Your task to perform on an android device: Open Chrome and go to settings Image 0: 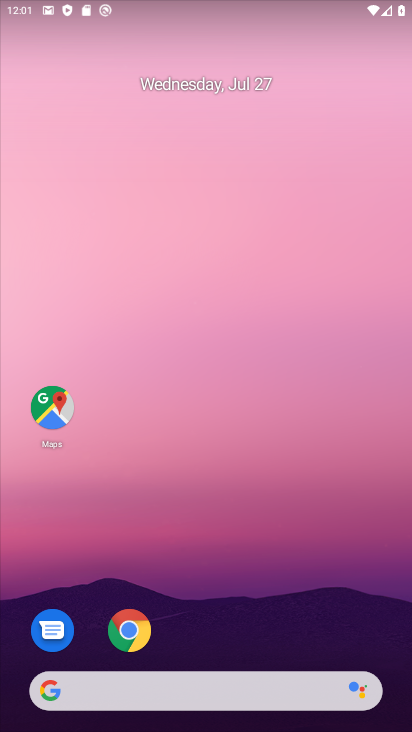
Step 0: click (138, 621)
Your task to perform on an android device: Open Chrome and go to settings Image 1: 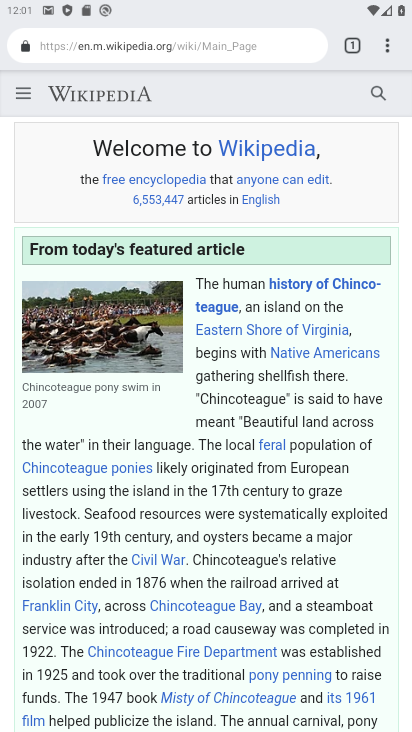
Step 1: click (388, 43)
Your task to perform on an android device: Open Chrome and go to settings Image 2: 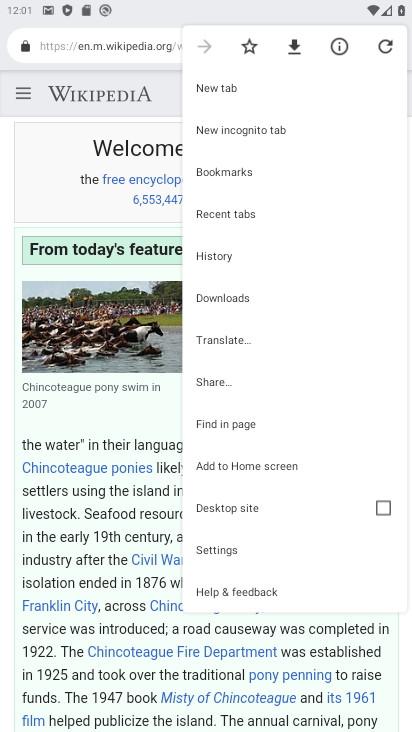
Step 2: click (225, 547)
Your task to perform on an android device: Open Chrome and go to settings Image 3: 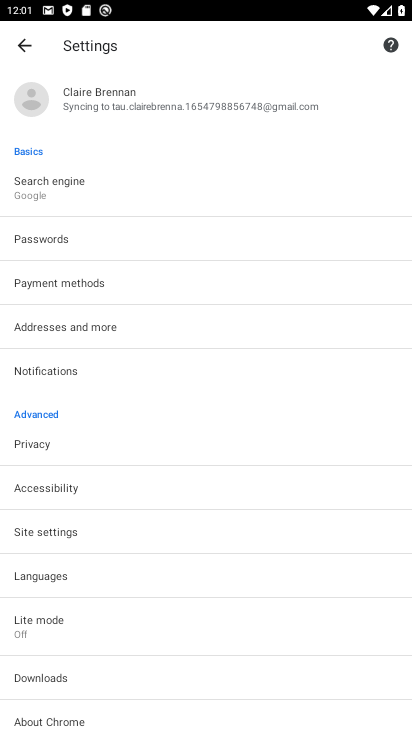
Step 3: task complete